Your task to perform on an android device: move an email to a new category in the gmail app Image 0: 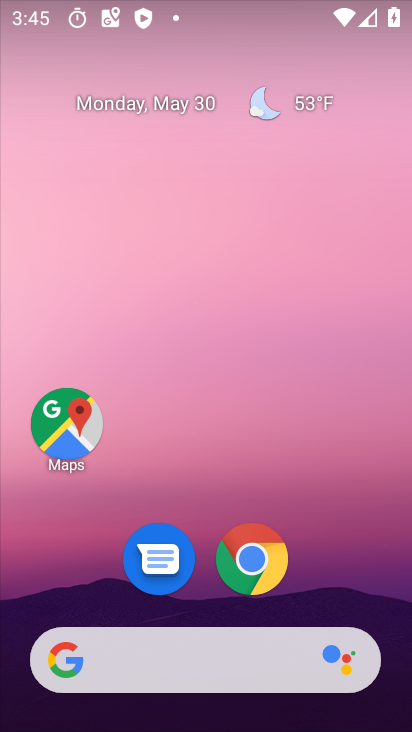
Step 0: drag from (183, 710) to (179, 128)
Your task to perform on an android device: move an email to a new category in the gmail app Image 1: 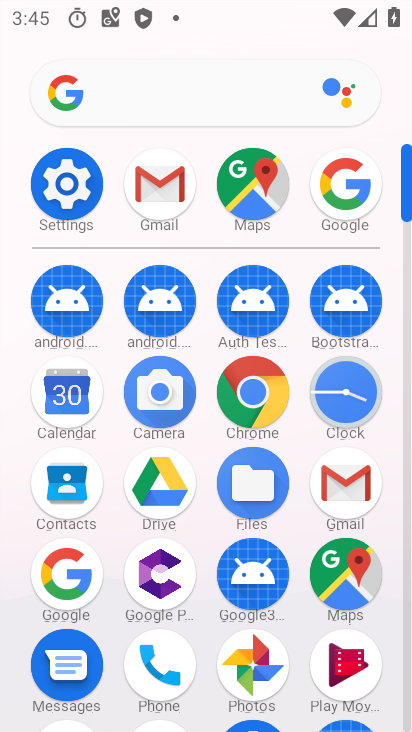
Step 1: click (353, 481)
Your task to perform on an android device: move an email to a new category in the gmail app Image 2: 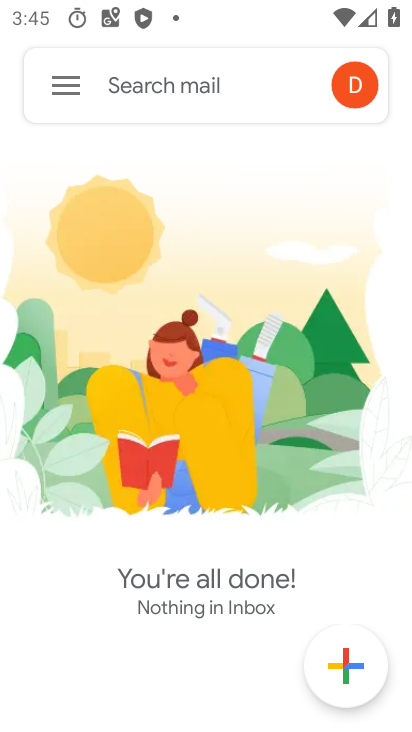
Step 2: task complete